Your task to perform on an android device: see tabs open on other devices in the chrome app Image 0: 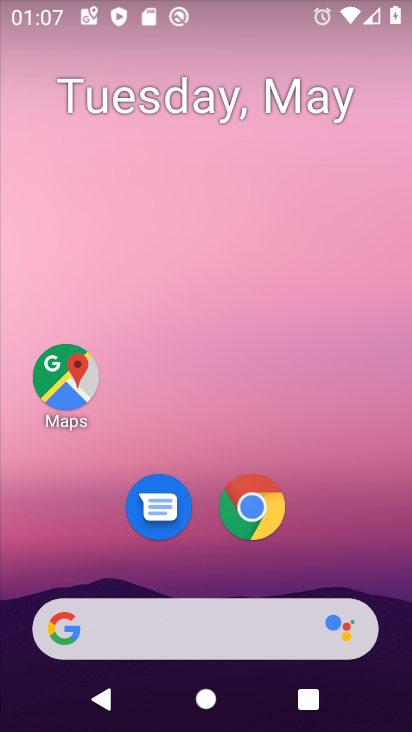
Step 0: click (225, 513)
Your task to perform on an android device: see tabs open on other devices in the chrome app Image 1: 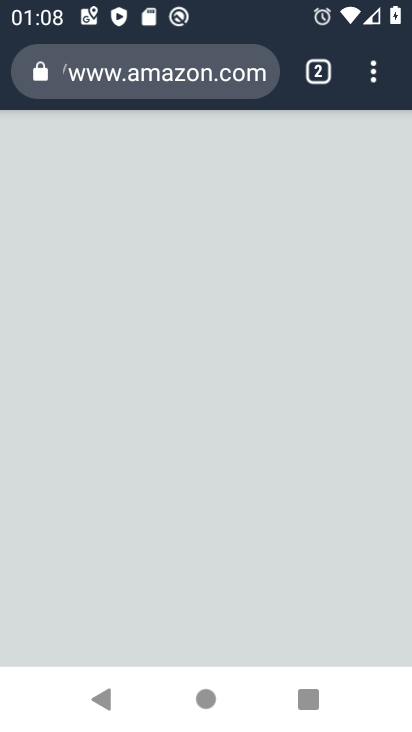
Step 1: click (327, 71)
Your task to perform on an android device: see tabs open on other devices in the chrome app Image 2: 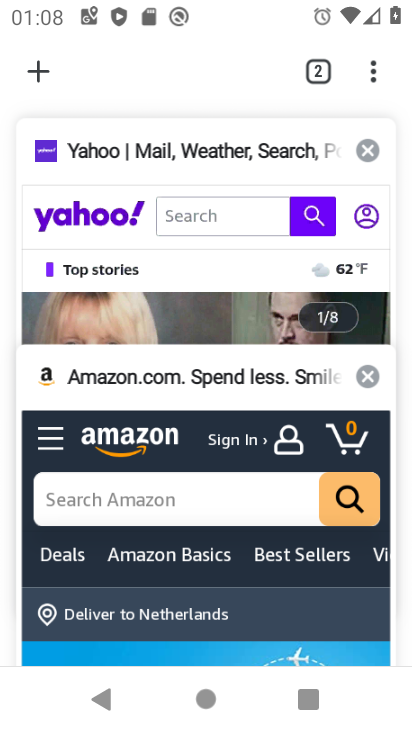
Step 2: task complete